Your task to perform on an android device: turn on javascript in the chrome app Image 0: 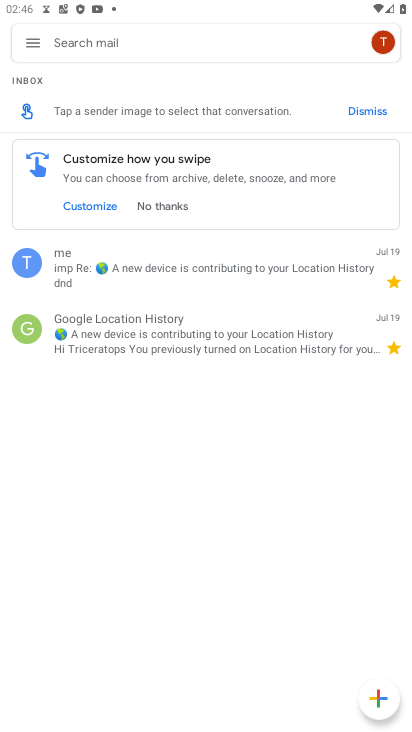
Step 0: press home button
Your task to perform on an android device: turn on javascript in the chrome app Image 1: 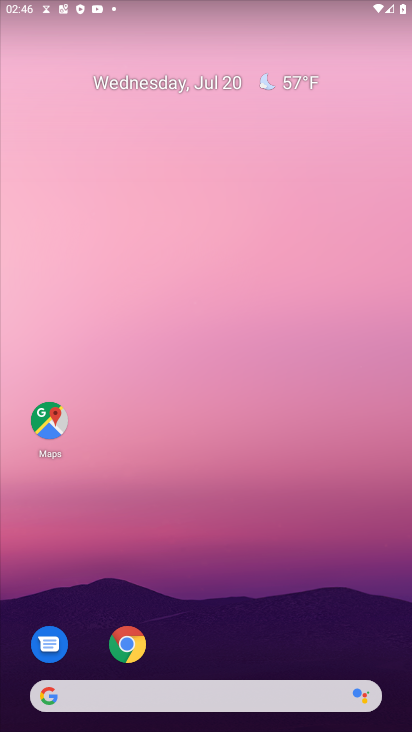
Step 1: drag from (242, 668) to (280, 9)
Your task to perform on an android device: turn on javascript in the chrome app Image 2: 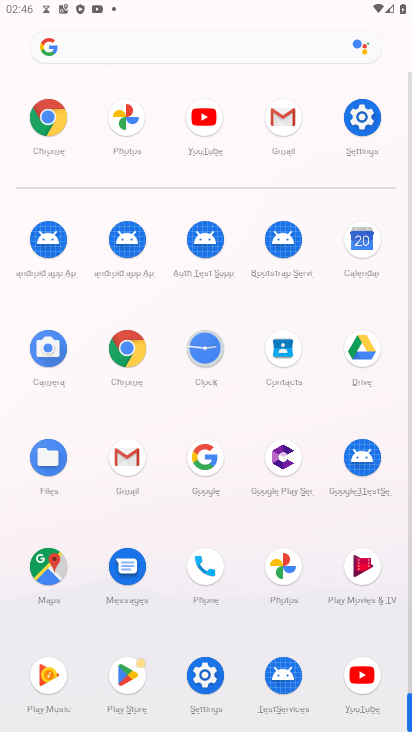
Step 2: click (47, 117)
Your task to perform on an android device: turn on javascript in the chrome app Image 3: 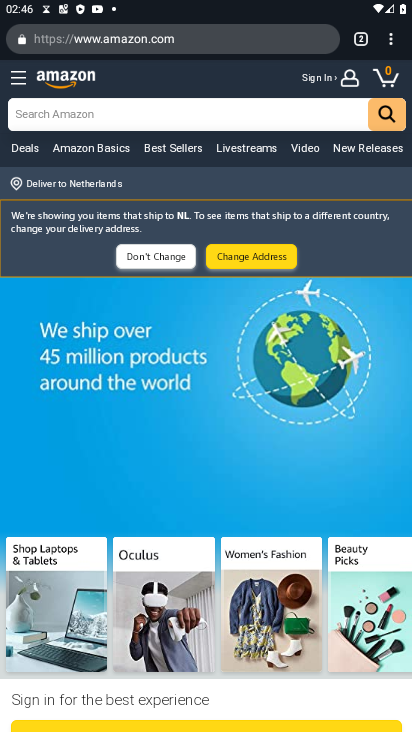
Step 3: drag from (393, 39) to (270, 474)
Your task to perform on an android device: turn on javascript in the chrome app Image 4: 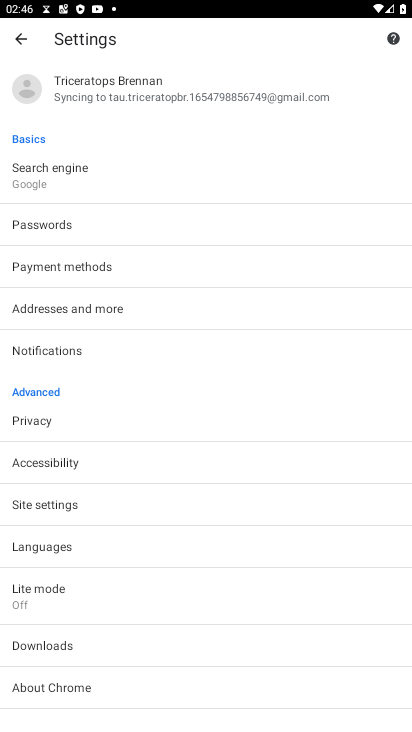
Step 4: click (42, 504)
Your task to perform on an android device: turn on javascript in the chrome app Image 5: 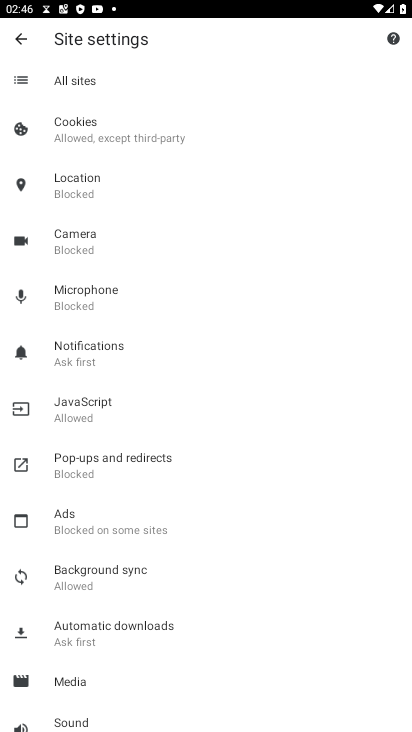
Step 5: click (79, 406)
Your task to perform on an android device: turn on javascript in the chrome app Image 6: 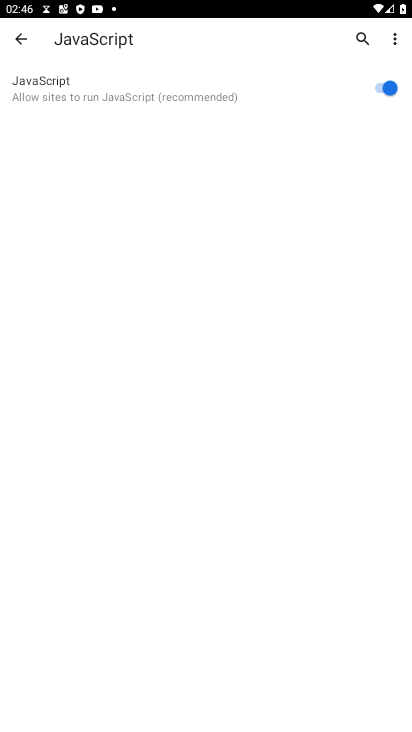
Step 6: task complete